Your task to perform on an android device: open app "Microsoft Outlook" (install if not already installed) Image 0: 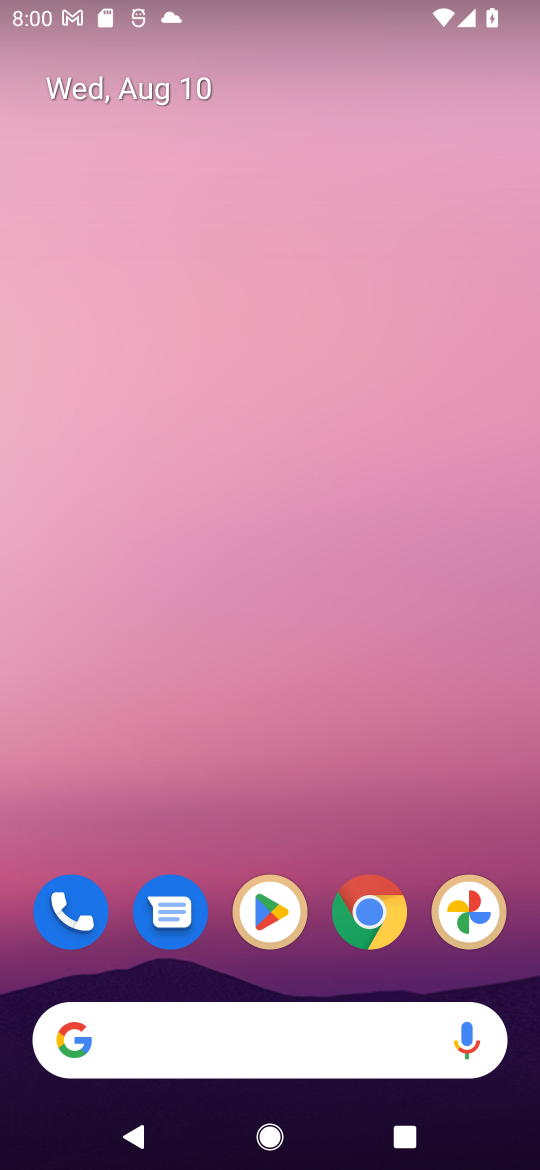
Step 0: drag from (426, 938) to (213, 43)
Your task to perform on an android device: open app "Microsoft Outlook" (install if not already installed) Image 1: 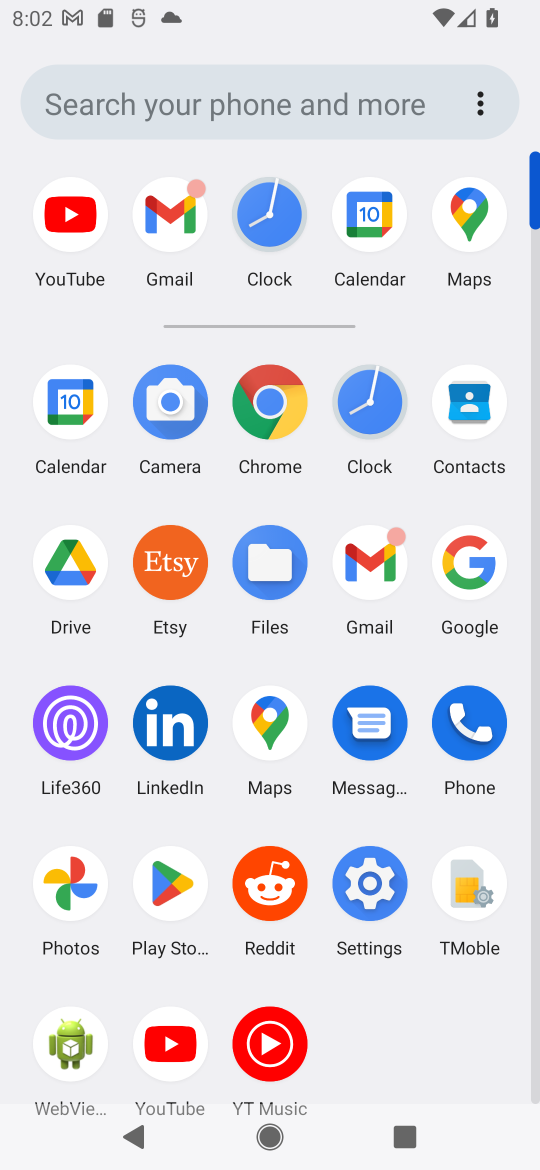
Step 1: click (179, 876)
Your task to perform on an android device: open app "Microsoft Outlook" (install if not already installed) Image 2: 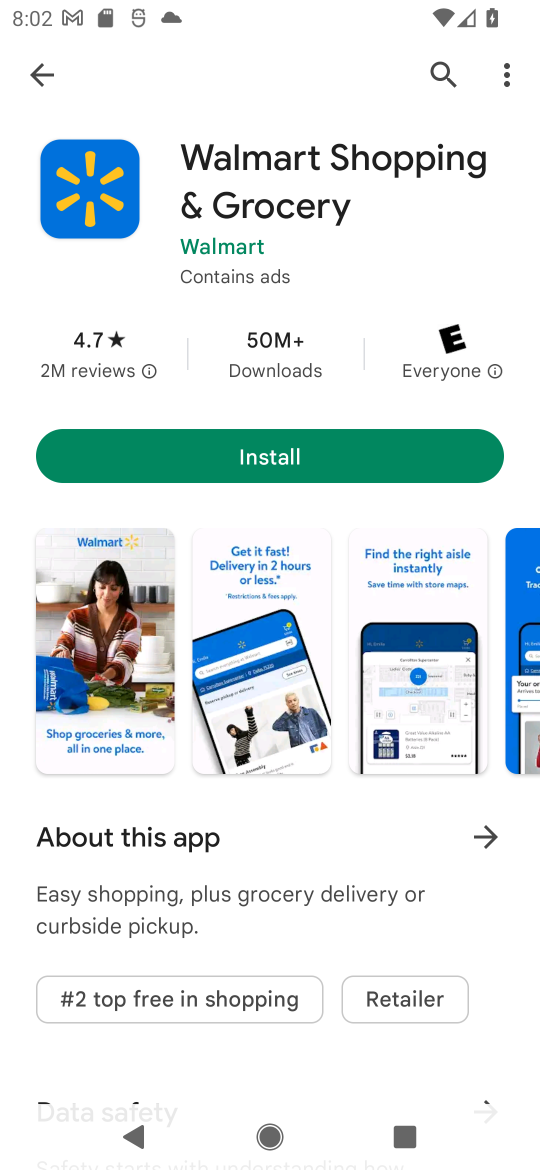
Step 2: press back button
Your task to perform on an android device: open app "Microsoft Outlook" (install if not already installed) Image 3: 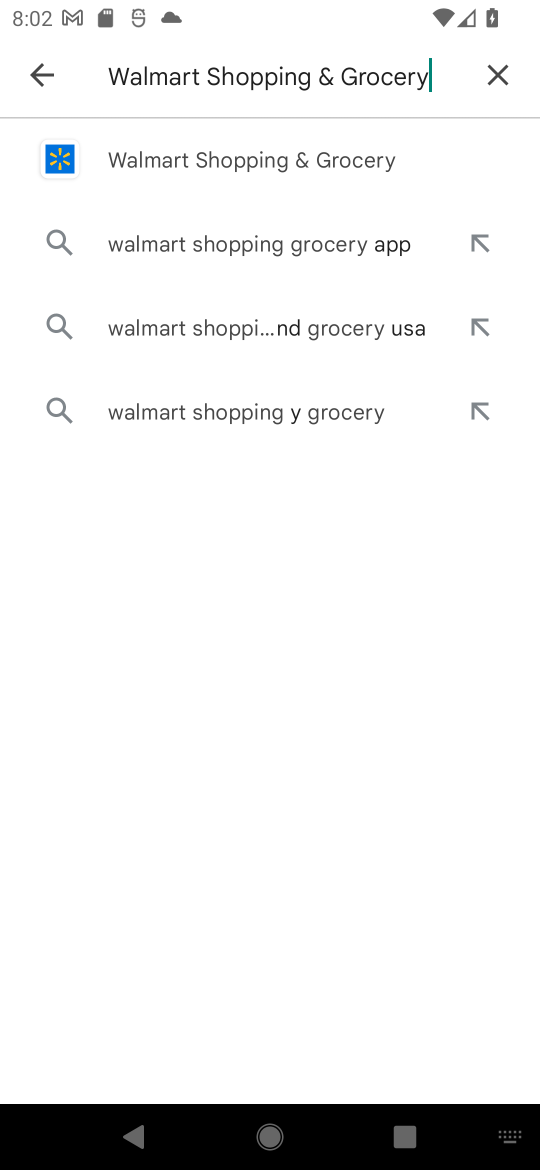
Step 3: press back button
Your task to perform on an android device: open app "Microsoft Outlook" (install if not already installed) Image 4: 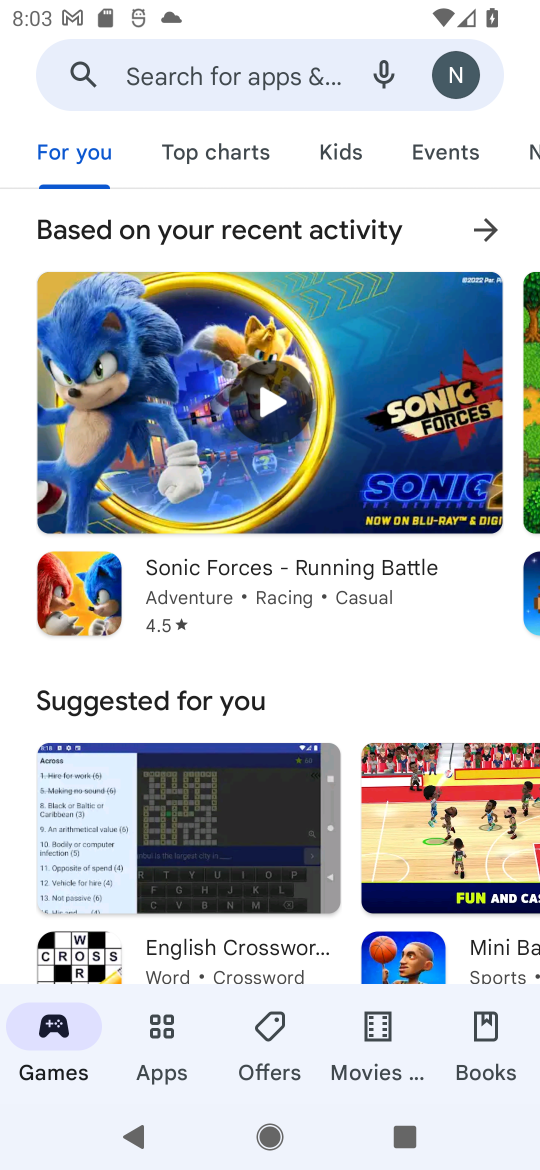
Step 4: click (191, 74)
Your task to perform on an android device: open app "Microsoft Outlook" (install if not already installed) Image 5: 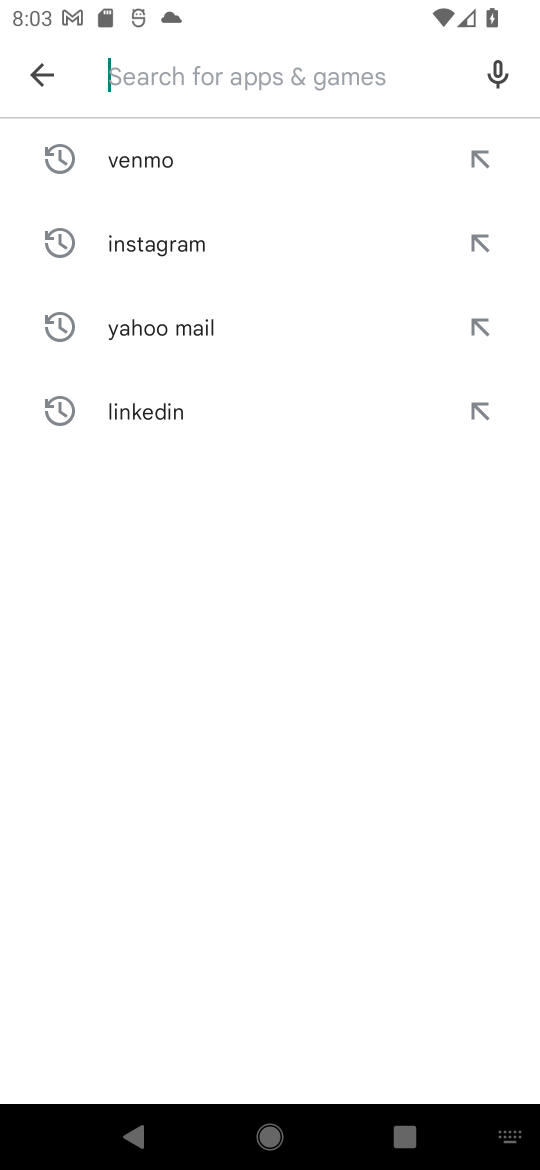
Step 5: type "Microsoft Outlook"
Your task to perform on an android device: open app "Microsoft Outlook" (install if not already installed) Image 6: 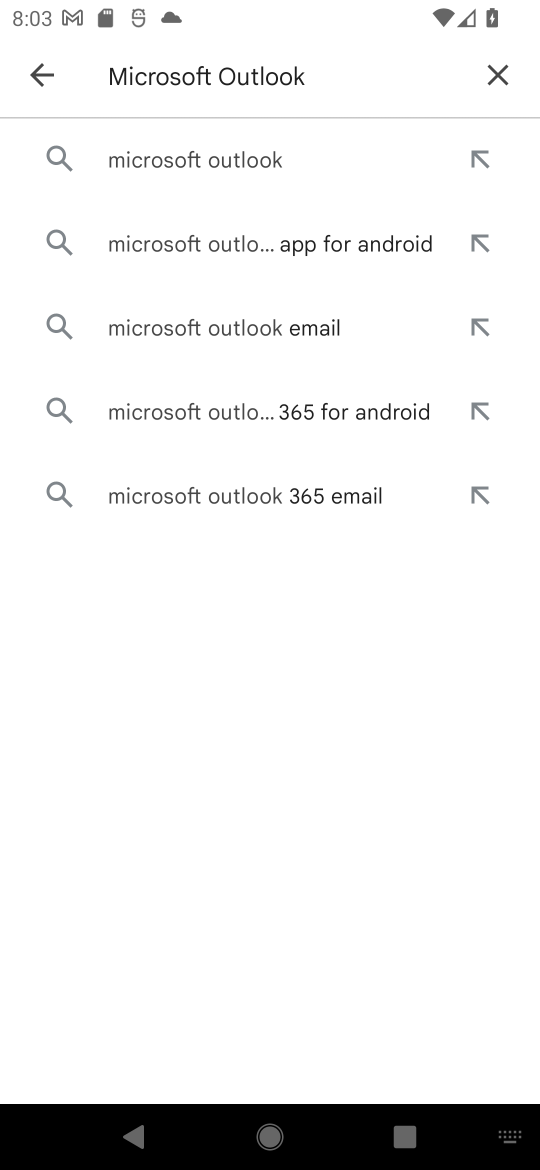
Step 6: click (136, 157)
Your task to perform on an android device: open app "Microsoft Outlook" (install if not already installed) Image 7: 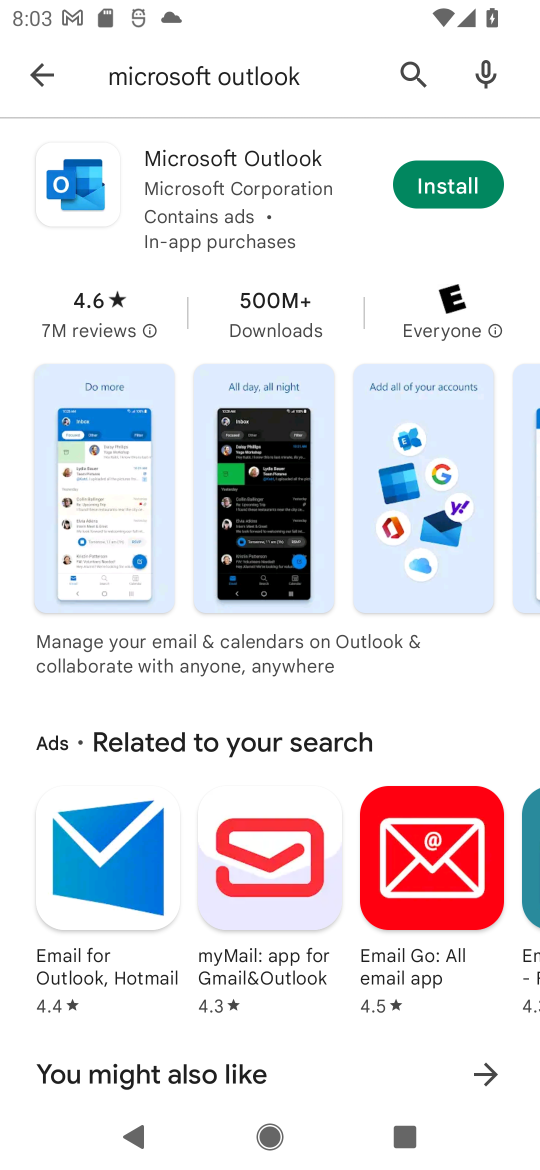
Step 7: task complete